Your task to perform on an android device: Go to sound settings Image 0: 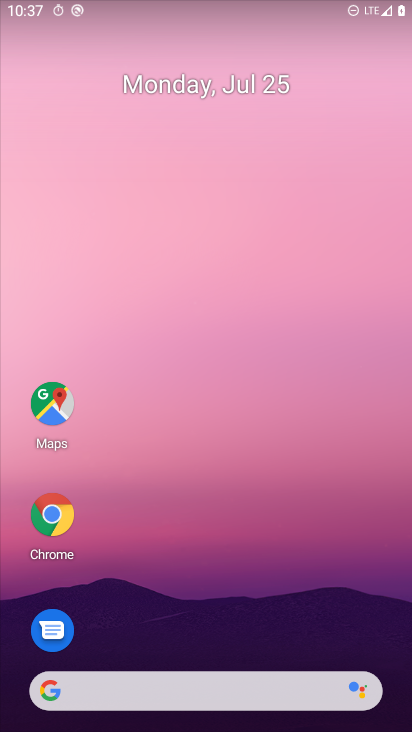
Step 0: drag from (95, 541) to (257, 156)
Your task to perform on an android device: Go to sound settings Image 1: 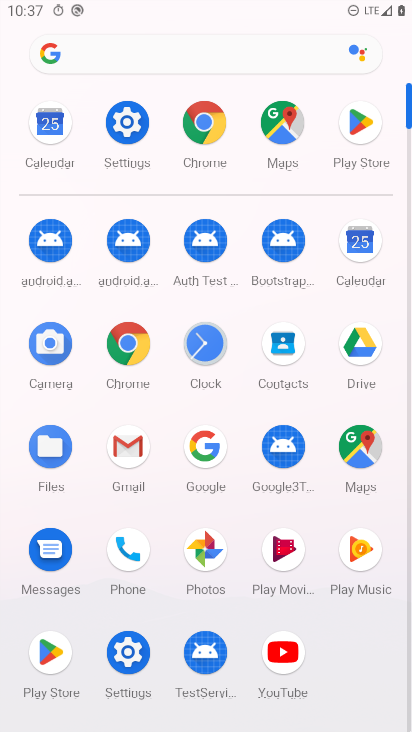
Step 1: click (133, 655)
Your task to perform on an android device: Go to sound settings Image 2: 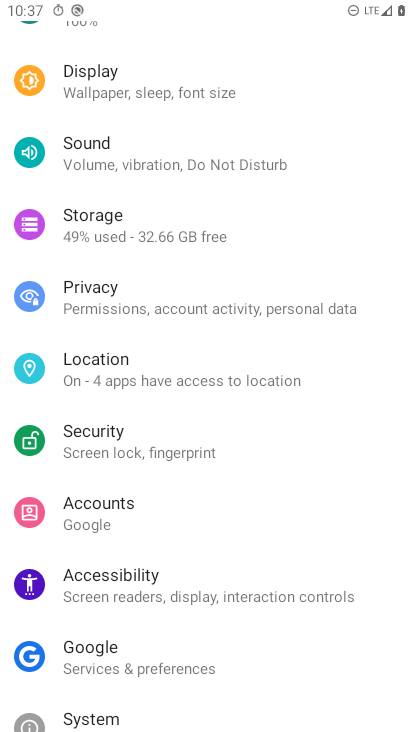
Step 2: click (98, 134)
Your task to perform on an android device: Go to sound settings Image 3: 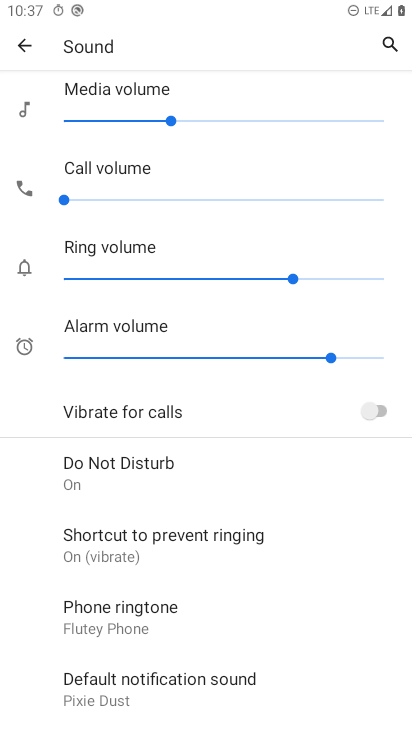
Step 3: task complete